Your task to perform on an android device: clear all cookies in the chrome app Image 0: 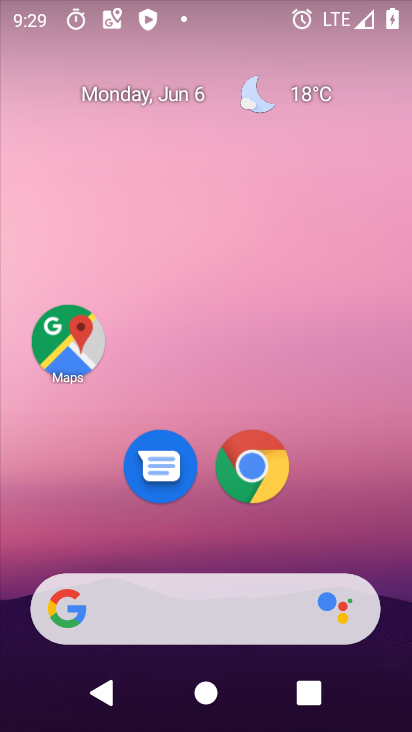
Step 0: drag from (218, 528) to (0, 604)
Your task to perform on an android device: clear all cookies in the chrome app Image 1: 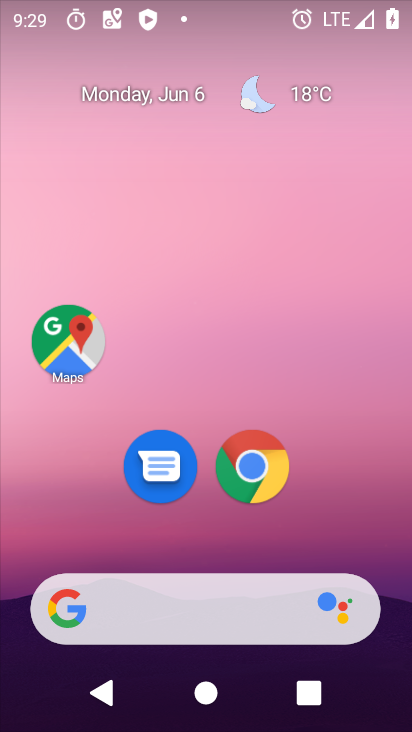
Step 1: click (246, 475)
Your task to perform on an android device: clear all cookies in the chrome app Image 2: 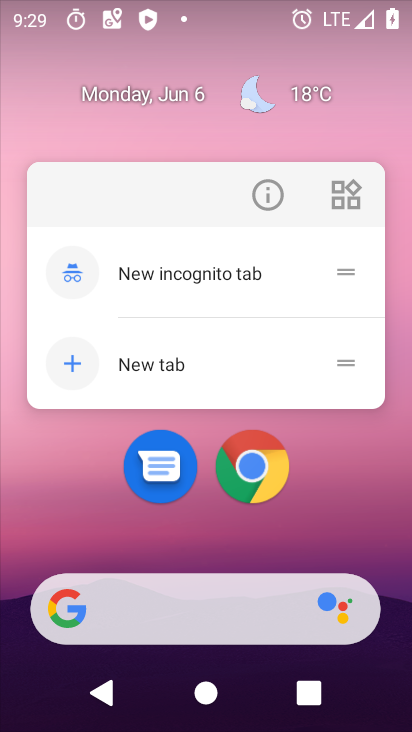
Step 2: click (269, 206)
Your task to perform on an android device: clear all cookies in the chrome app Image 3: 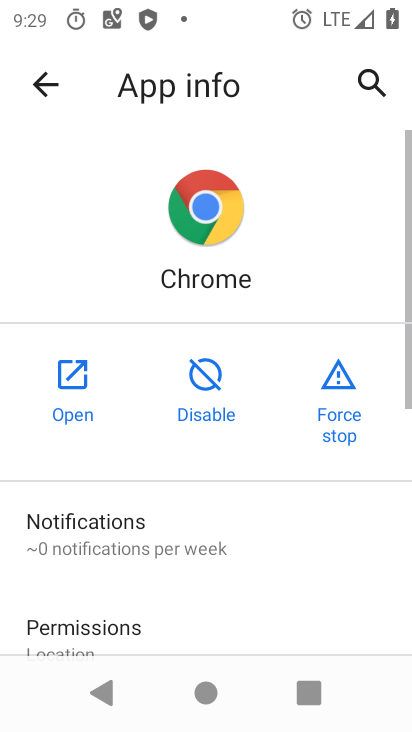
Step 3: click (68, 377)
Your task to perform on an android device: clear all cookies in the chrome app Image 4: 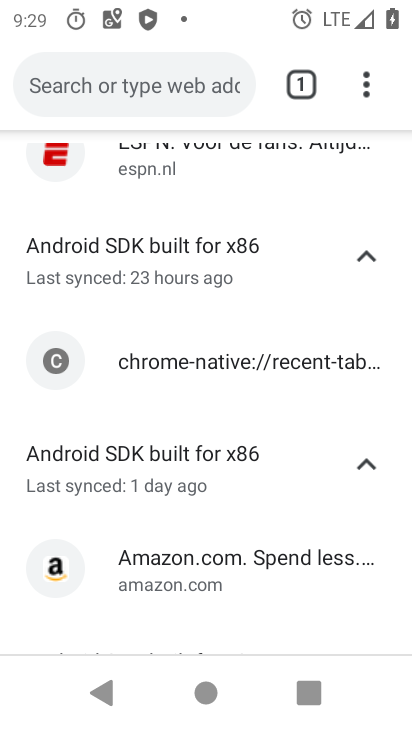
Step 4: click (367, 83)
Your task to perform on an android device: clear all cookies in the chrome app Image 5: 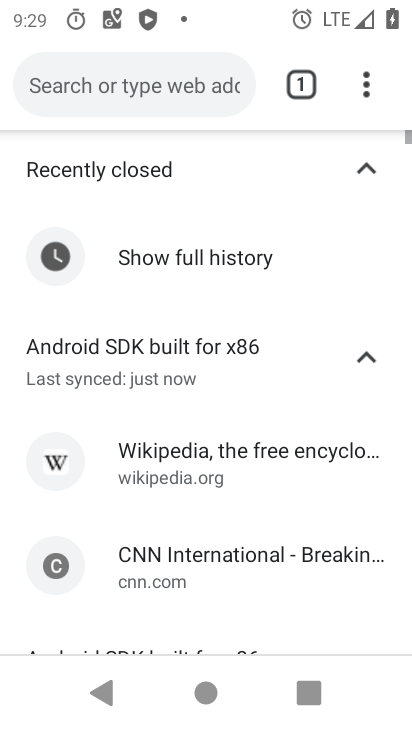
Step 5: drag from (364, 82) to (200, 286)
Your task to perform on an android device: clear all cookies in the chrome app Image 6: 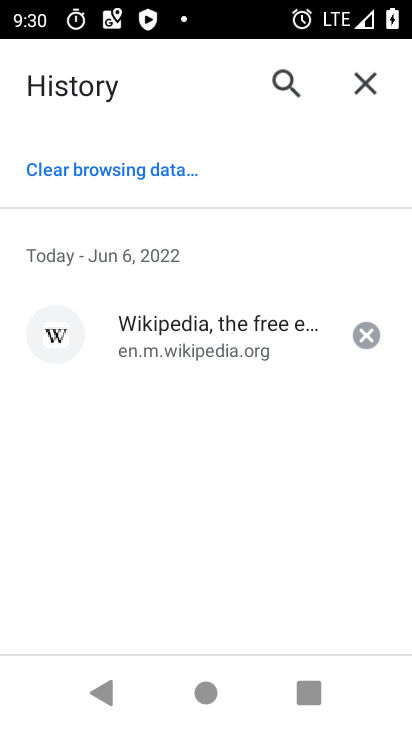
Step 6: click (97, 171)
Your task to perform on an android device: clear all cookies in the chrome app Image 7: 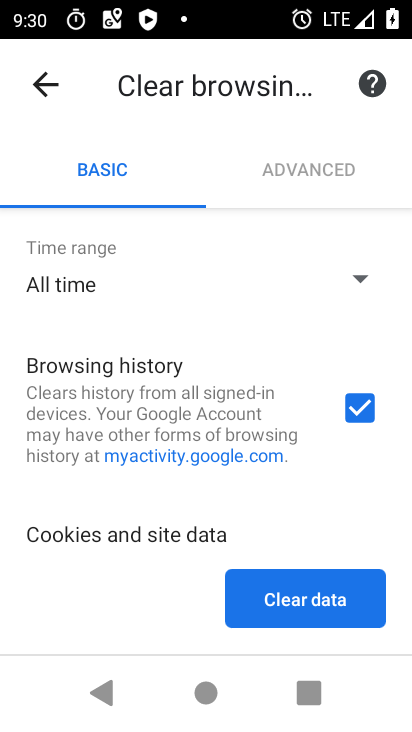
Step 7: click (351, 402)
Your task to perform on an android device: clear all cookies in the chrome app Image 8: 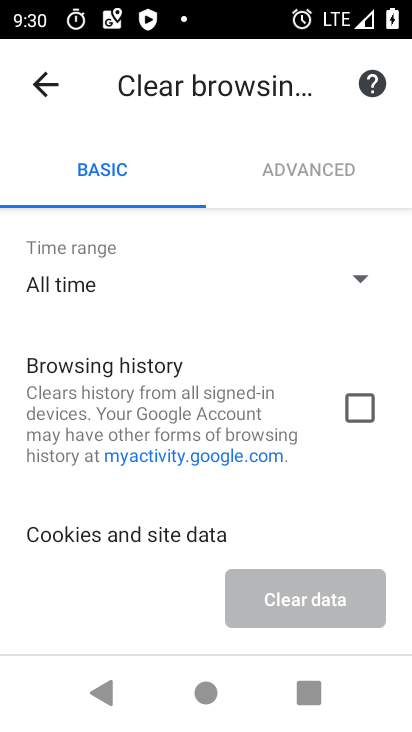
Step 8: drag from (304, 518) to (310, 256)
Your task to perform on an android device: clear all cookies in the chrome app Image 9: 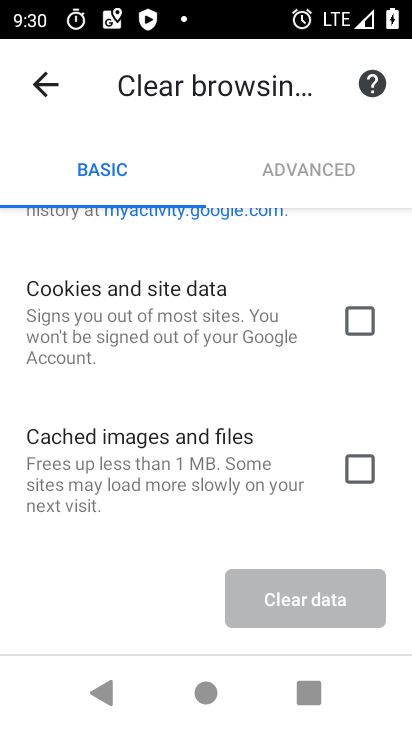
Step 9: click (376, 343)
Your task to perform on an android device: clear all cookies in the chrome app Image 10: 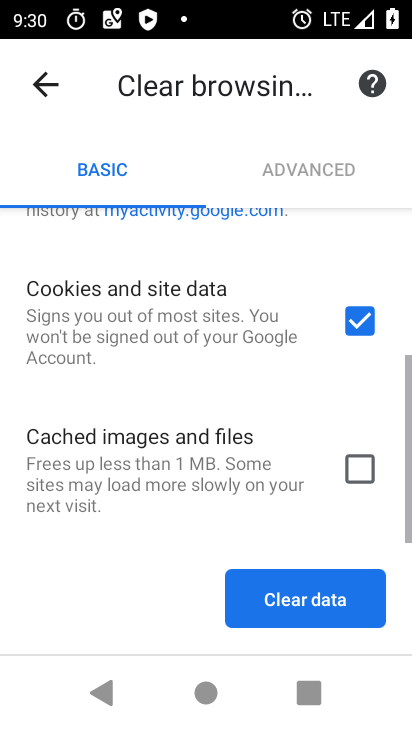
Step 10: click (271, 606)
Your task to perform on an android device: clear all cookies in the chrome app Image 11: 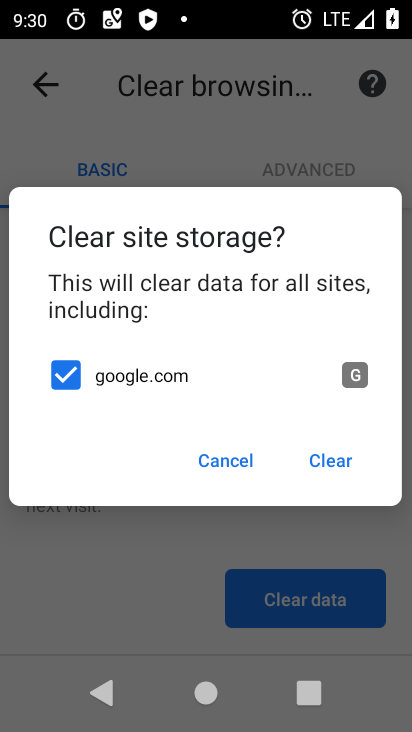
Step 11: click (338, 462)
Your task to perform on an android device: clear all cookies in the chrome app Image 12: 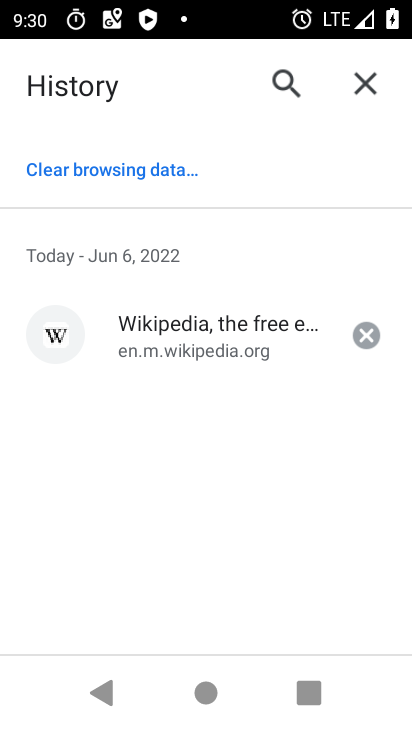
Step 12: task complete